Your task to perform on an android device: open a bookmark in the chrome app Image 0: 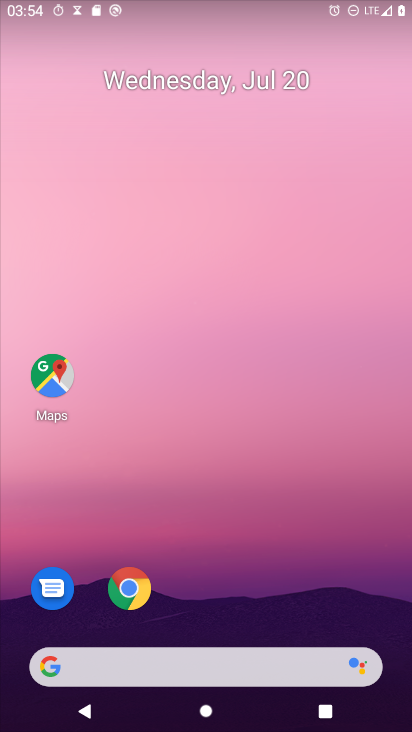
Step 0: click (132, 594)
Your task to perform on an android device: open a bookmark in the chrome app Image 1: 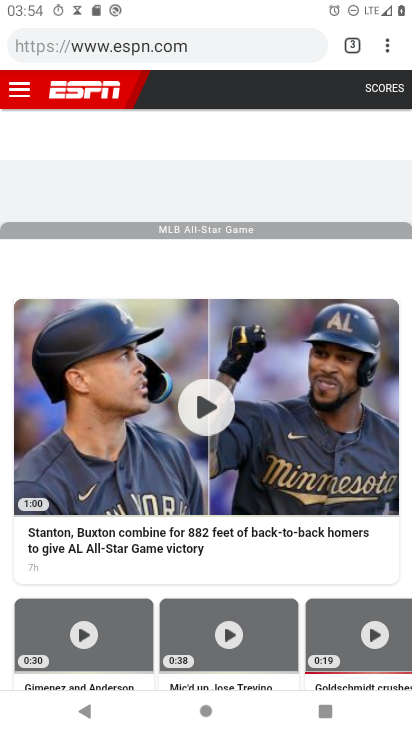
Step 1: click (388, 51)
Your task to perform on an android device: open a bookmark in the chrome app Image 2: 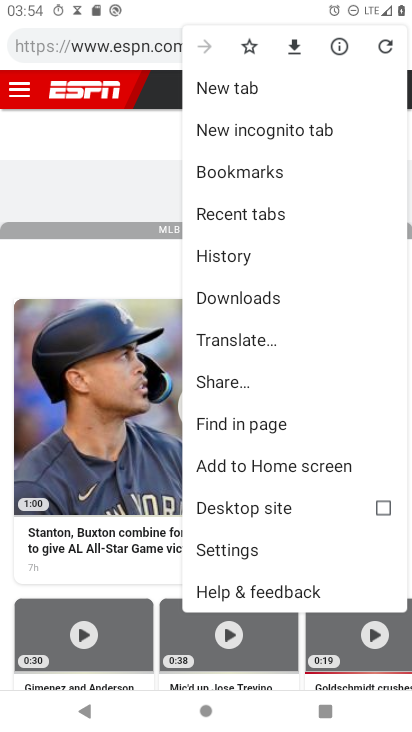
Step 2: click (243, 170)
Your task to perform on an android device: open a bookmark in the chrome app Image 3: 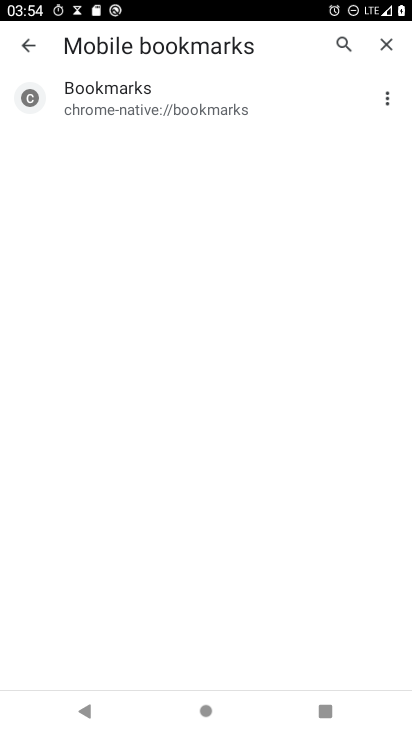
Step 3: task complete